Your task to perform on an android device: Open the stopwatch Image 0: 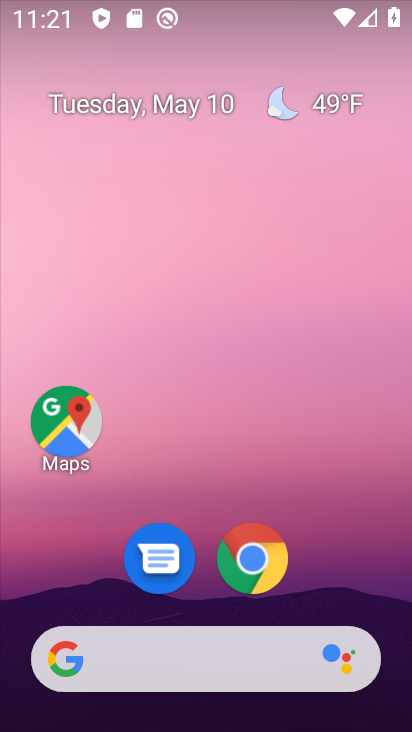
Step 0: drag from (334, 576) to (247, 4)
Your task to perform on an android device: Open the stopwatch Image 1: 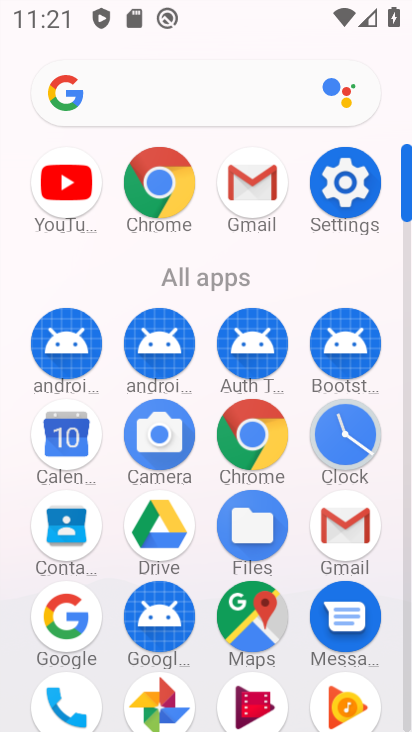
Step 1: click (354, 436)
Your task to perform on an android device: Open the stopwatch Image 2: 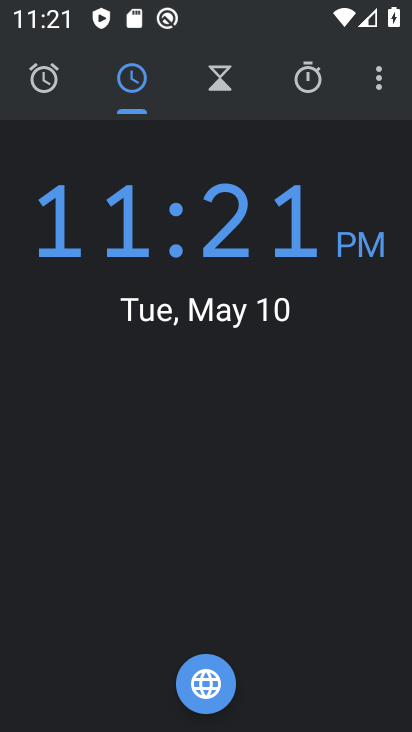
Step 2: click (327, 77)
Your task to perform on an android device: Open the stopwatch Image 3: 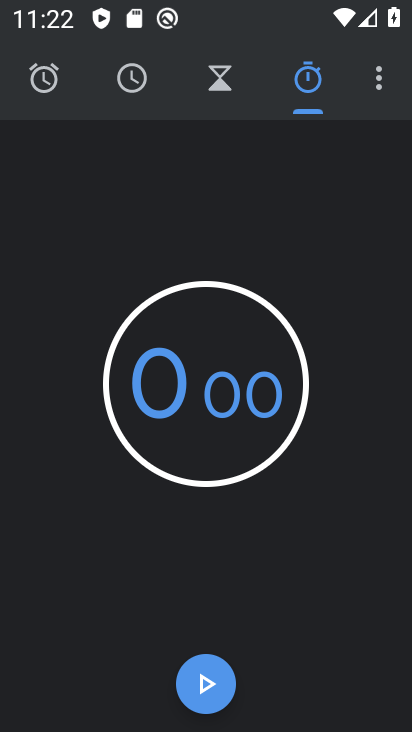
Step 3: task complete